Your task to perform on an android device: Open Chrome and go to the settings page Image 0: 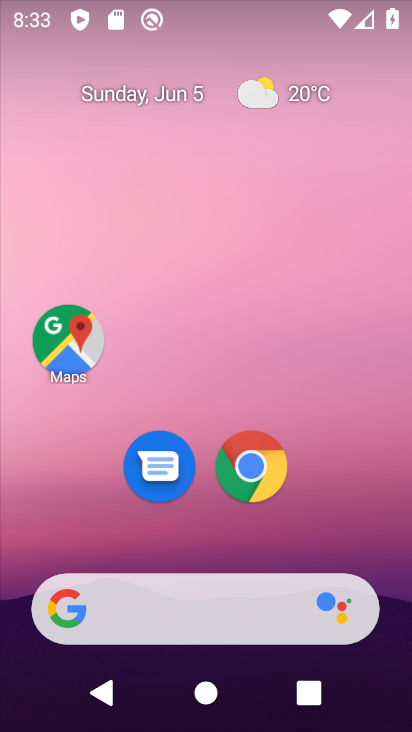
Step 0: drag from (210, 536) to (205, 46)
Your task to perform on an android device: Open Chrome and go to the settings page Image 1: 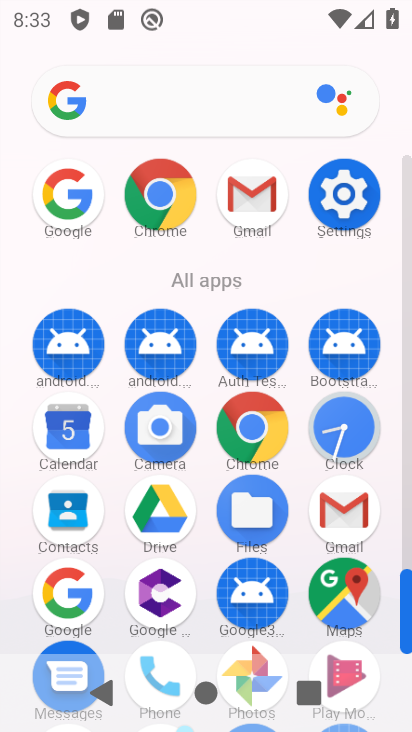
Step 1: click (147, 203)
Your task to perform on an android device: Open Chrome and go to the settings page Image 2: 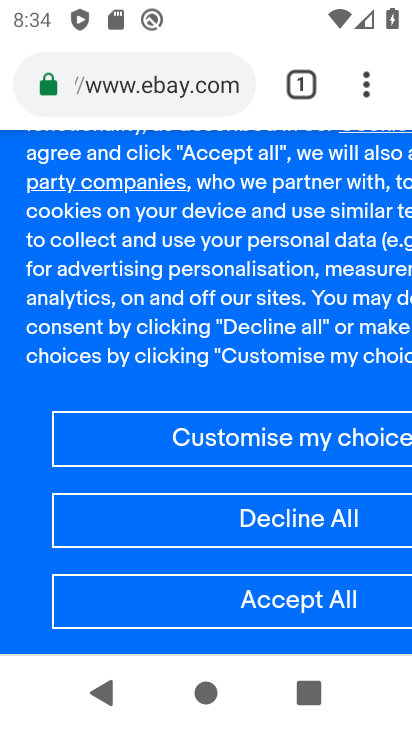
Step 2: click (362, 86)
Your task to perform on an android device: Open Chrome and go to the settings page Image 3: 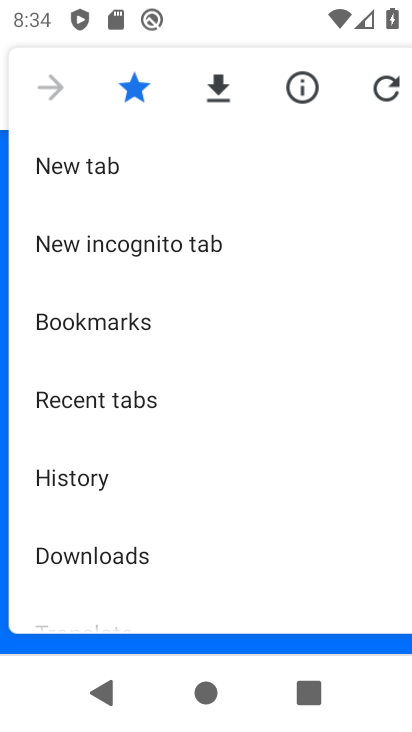
Step 3: drag from (163, 542) to (149, 244)
Your task to perform on an android device: Open Chrome and go to the settings page Image 4: 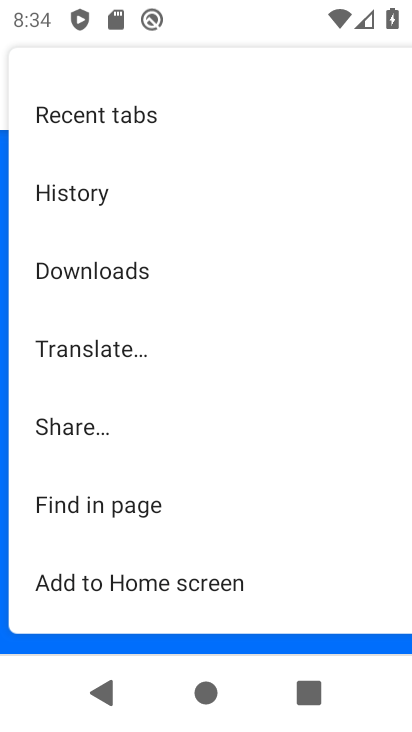
Step 4: drag from (135, 510) to (153, 289)
Your task to perform on an android device: Open Chrome and go to the settings page Image 5: 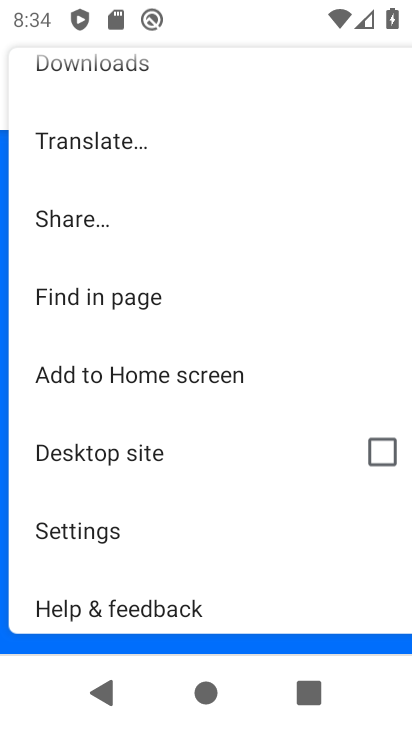
Step 5: click (96, 545)
Your task to perform on an android device: Open Chrome and go to the settings page Image 6: 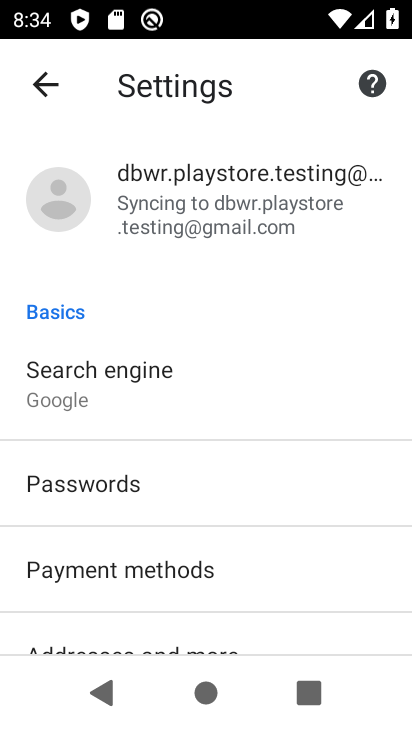
Step 6: task complete